Your task to perform on an android device: Open the map Image 0: 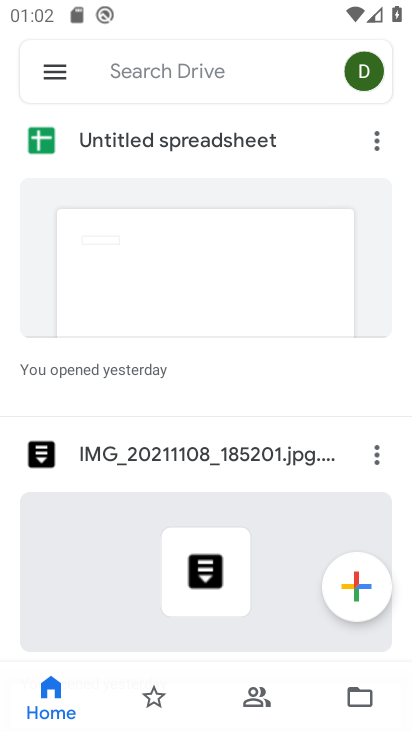
Step 0: press home button
Your task to perform on an android device: Open the map Image 1: 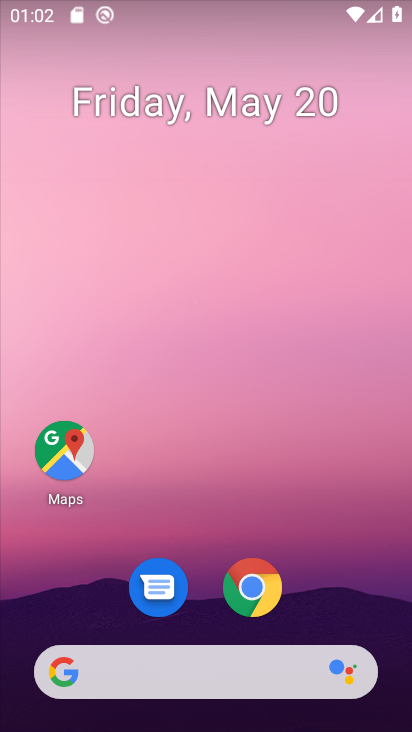
Step 1: drag from (373, 601) to (369, 212)
Your task to perform on an android device: Open the map Image 2: 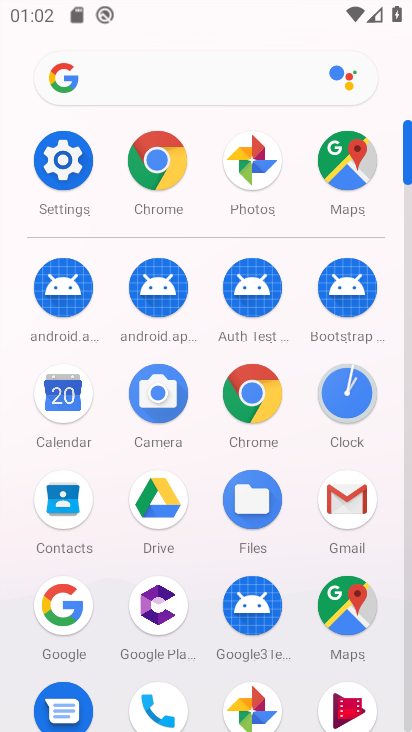
Step 2: click (360, 620)
Your task to perform on an android device: Open the map Image 3: 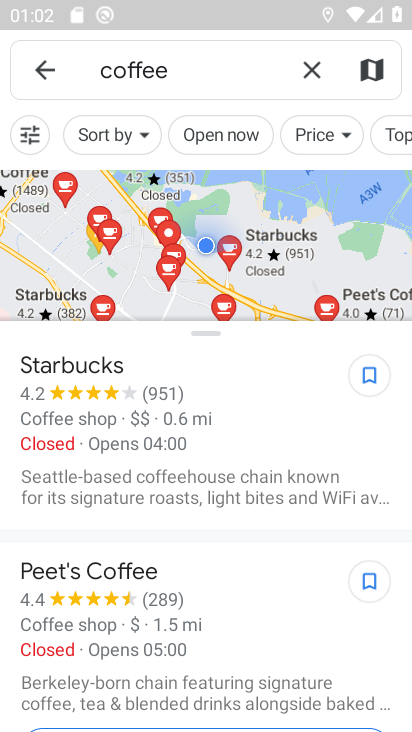
Step 3: task complete